Your task to perform on an android device: turn pop-ups on in chrome Image 0: 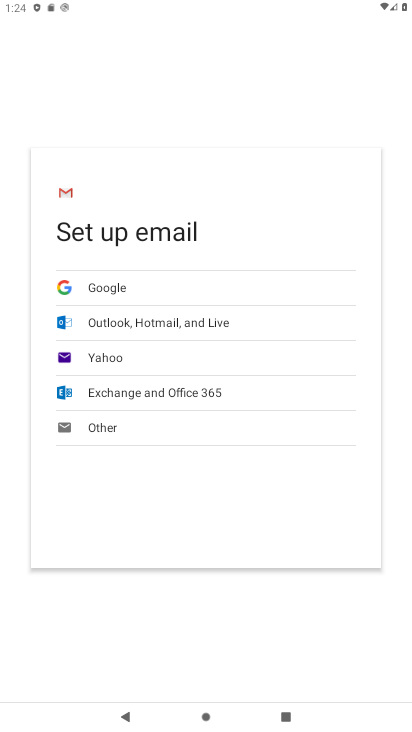
Step 0: press home button
Your task to perform on an android device: turn pop-ups on in chrome Image 1: 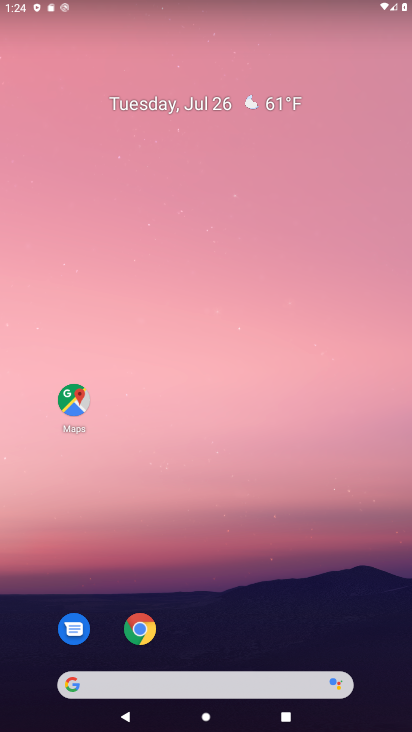
Step 1: drag from (222, 643) to (217, 60)
Your task to perform on an android device: turn pop-ups on in chrome Image 2: 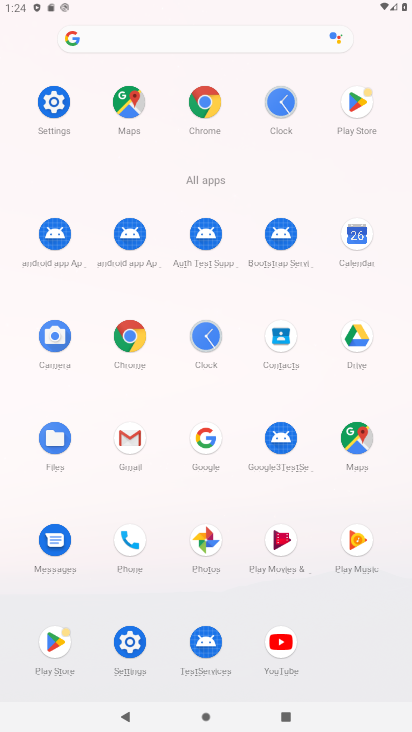
Step 2: click (47, 89)
Your task to perform on an android device: turn pop-ups on in chrome Image 3: 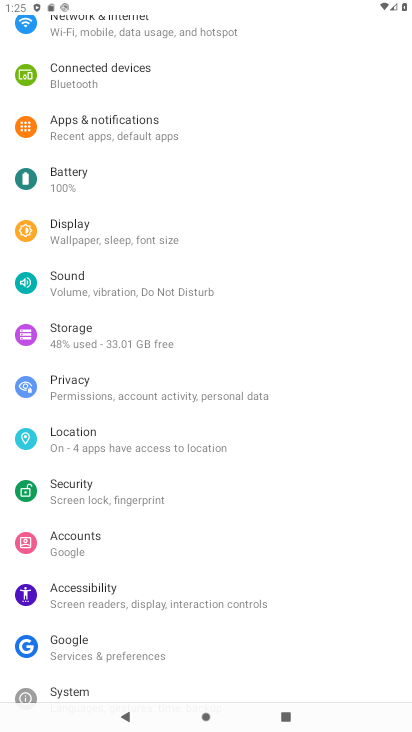
Step 3: drag from (90, 691) to (142, 206)
Your task to perform on an android device: turn pop-ups on in chrome Image 4: 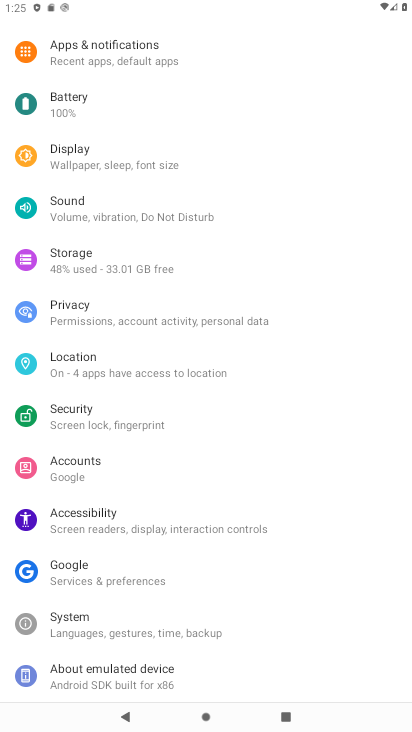
Step 4: press home button
Your task to perform on an android device: turn pop-ups on in chrome Image 5: 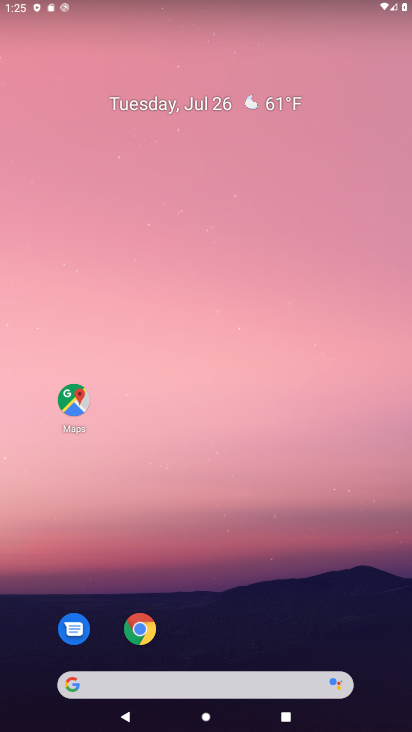
Step 5: click (145, 637)
Your task to perform on an android device: turn pop-ups on in chrome Image 6: 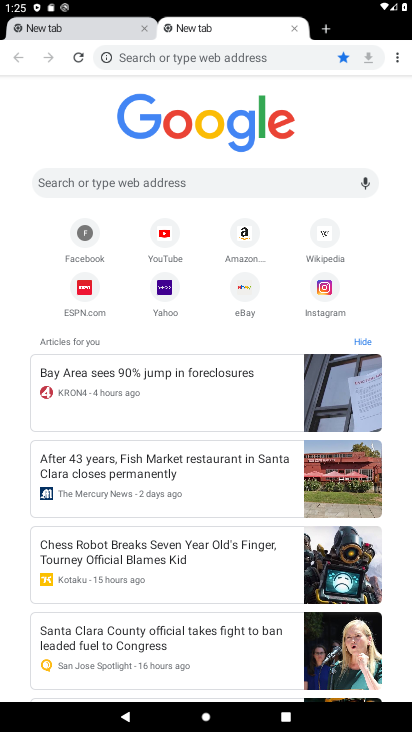
Step 6: click (395, 66)
Your task to perform on an android device: turn pop-ups on in chrome Image 7: 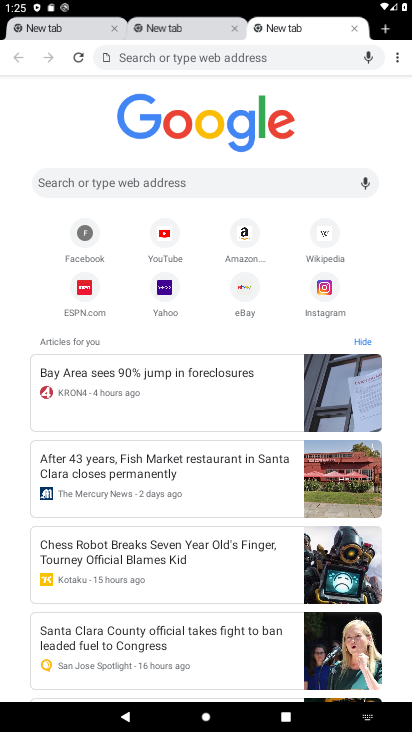
Step 7: click (400, 65)
Your task to perform on an android device: turn pop-ups on in chrome Image 8: 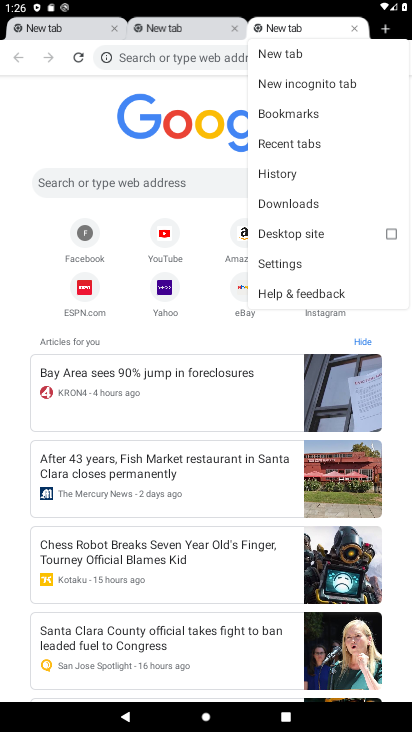
Step 8: click (310, 267)
Your task to perform on an android device: turn pop-ups on in chrome Image 9: 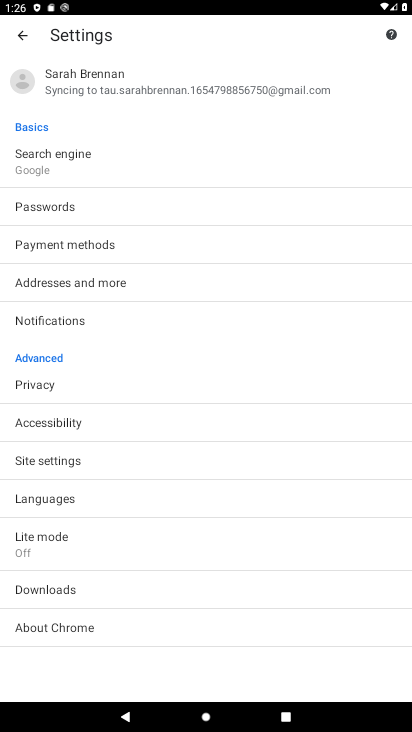
Step 9: click (58, 456)
Your task to perform on an android device: turn pop-ups on in chrome Image 10: 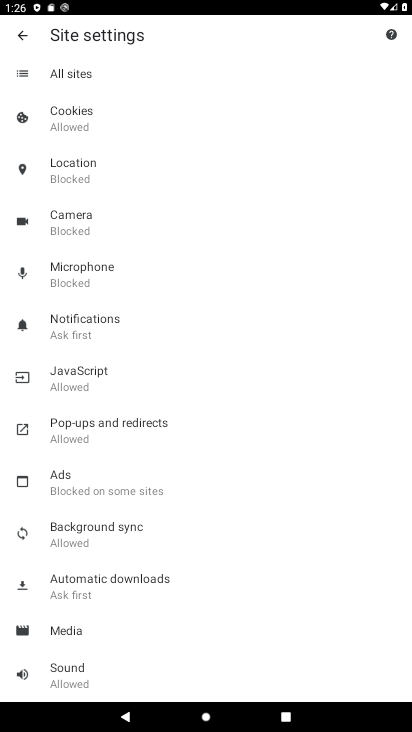
Step 10: click (133, 438)
Your task to perform on an android device: turn pop-ups on in chrome Image 11: 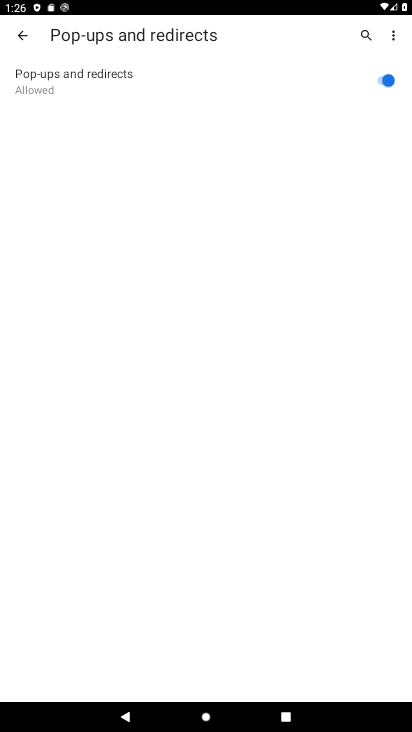
Step 11: task complete